Your task to perform on an android device: toggle airplane mode Image 0: 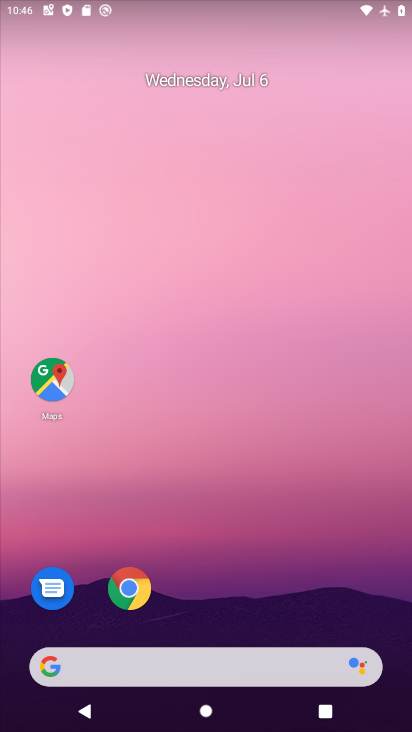
Step 0: drag from (200, 577) to (227, 240)
Your task to perform on an android device: toggle airplane mode Image 1: 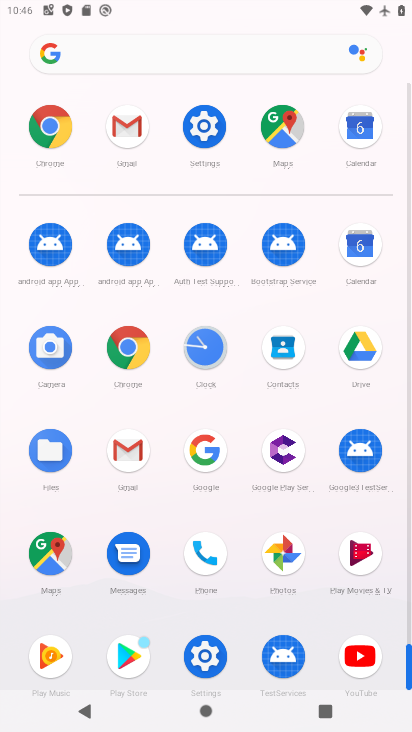
Step 1: click (203, 127)
Your task to perform on an android device: toggle airplane mode Image 2: 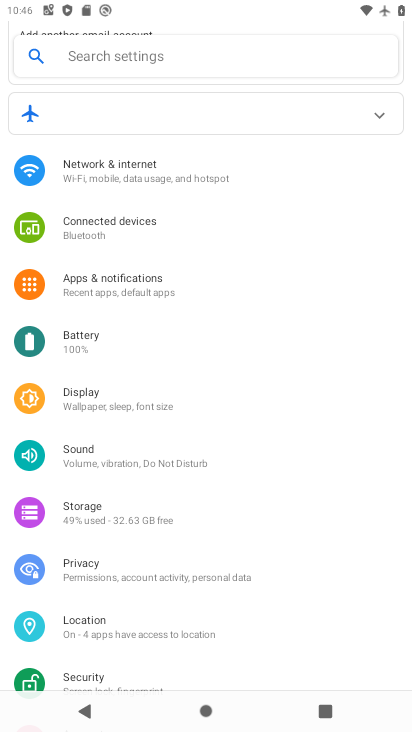
Step 2: click (177, 176)
Your task to perform on an android device: toggle airplane mode Image 3: 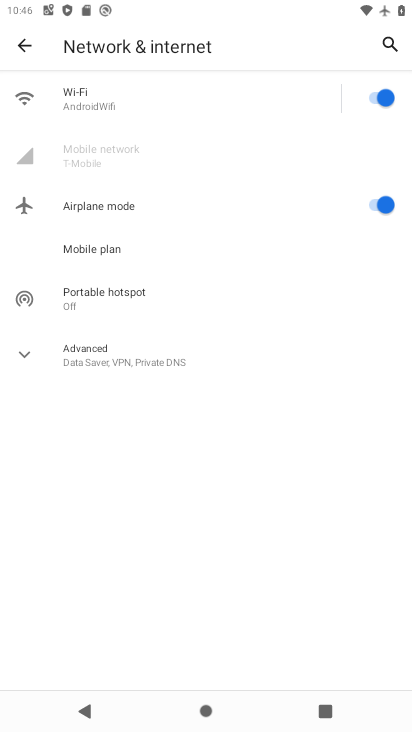
Step 3: click (381, 198)
Your task to perform on an android device: toggle airplane mode Image 4: 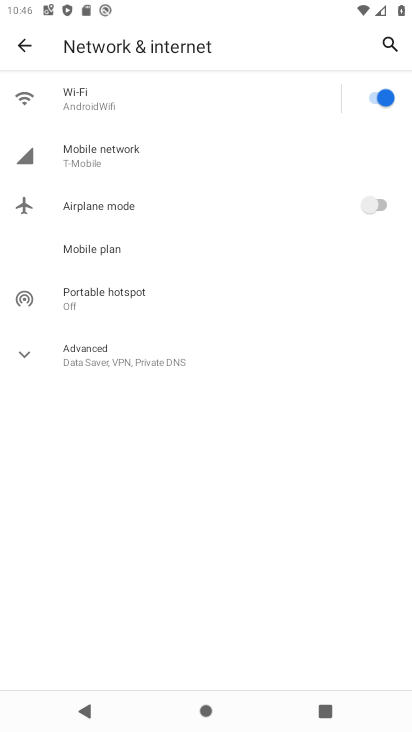
Step 4: task complete